Your task to perform on an android device: Open Reddit.com Image 0: 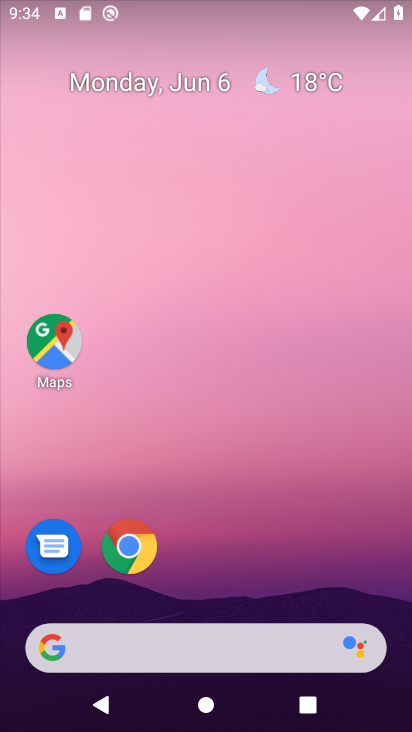
Step 0: click (132, 544)
Your task to perform on an android device: Open Reddit.com Image 1: 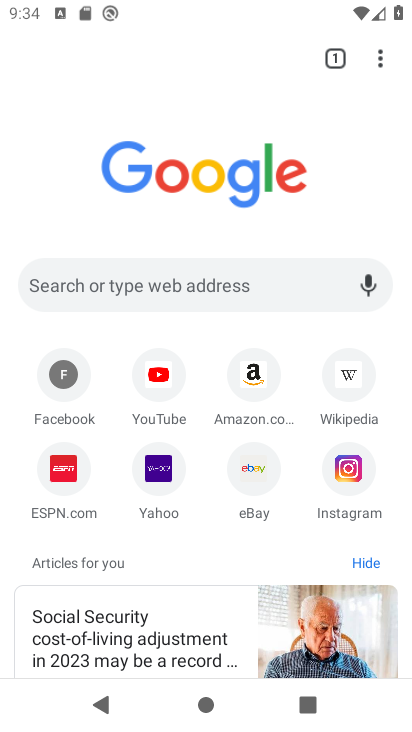
Step 1: click (155, 291)
Your task to perform on an android device: Open Reddit.com Image 2: 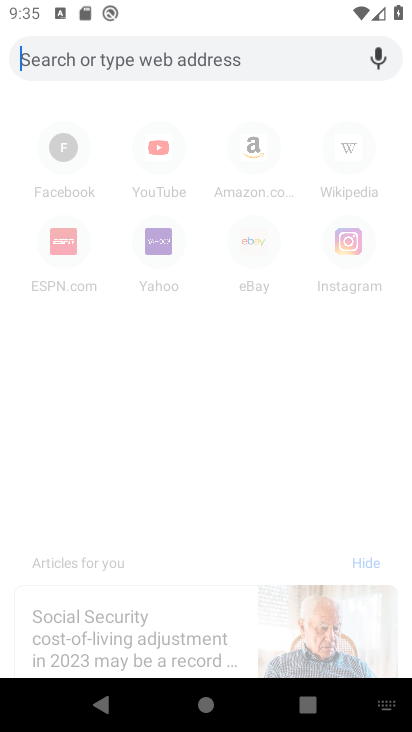
Step 2: type "reddit.com"
Your task to perform on an android device: Open Reddit.com Image 3: 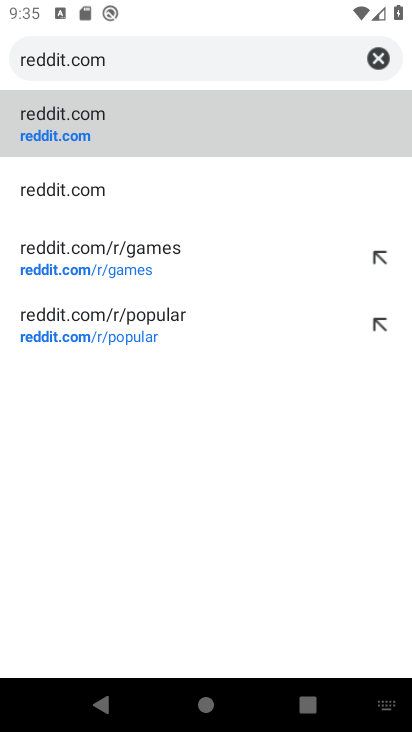
Step 3: click (89, 122)
Your task to perform on an android device: Open Reddit.com Image 4: 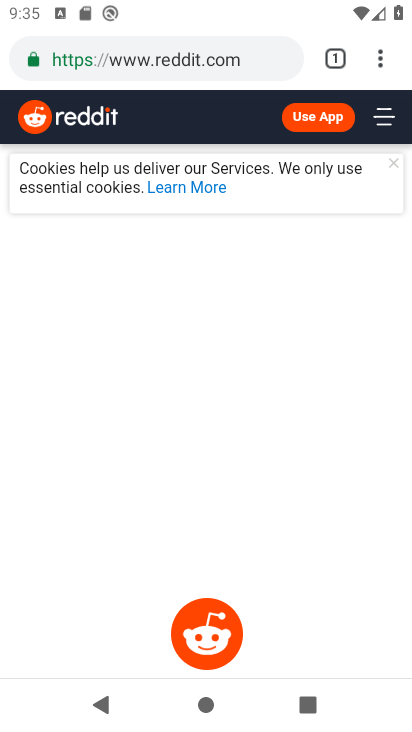
Step 4: task complete